Your task to perform on an android device: empty trash in google photos Image 0: 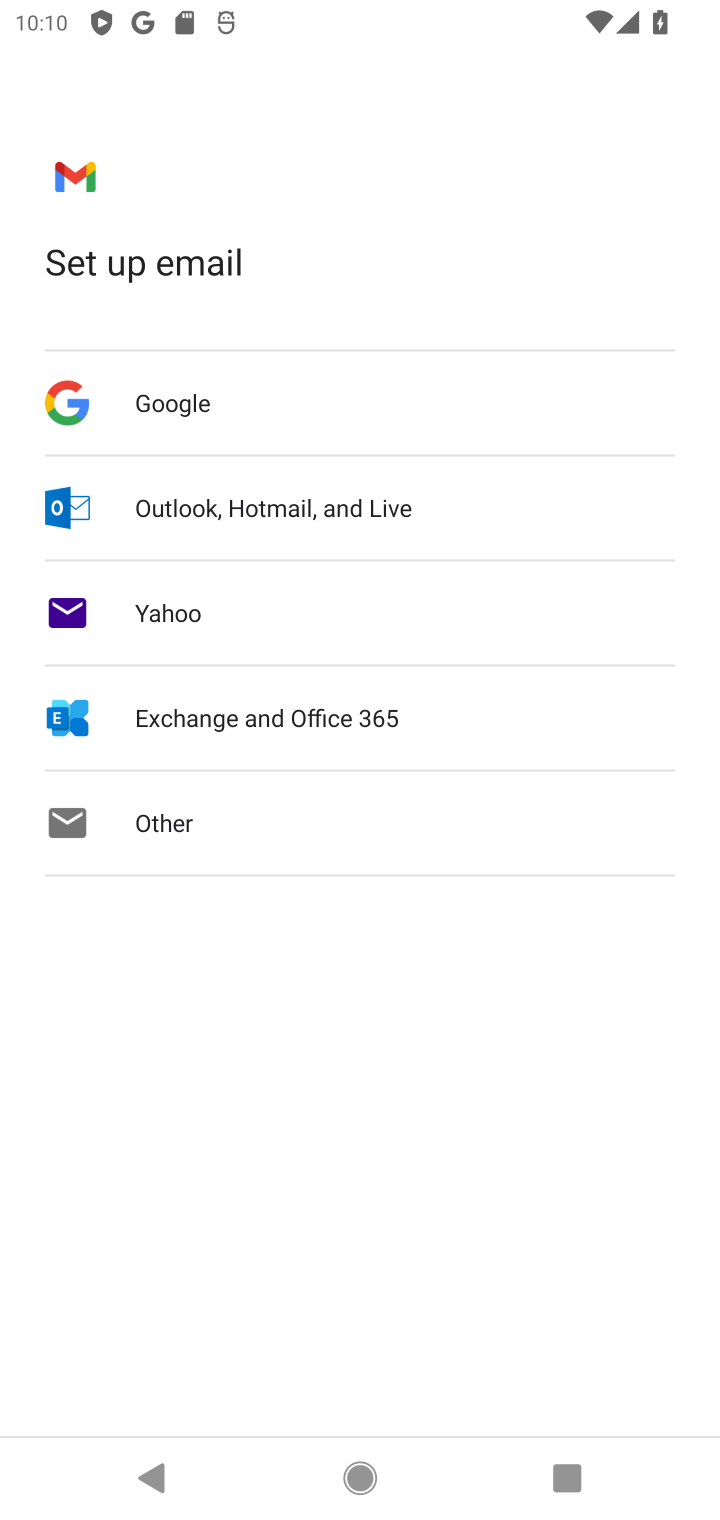
Step 0: press home button
Your task to perform on an android device: empty trash in google photos Image 1: 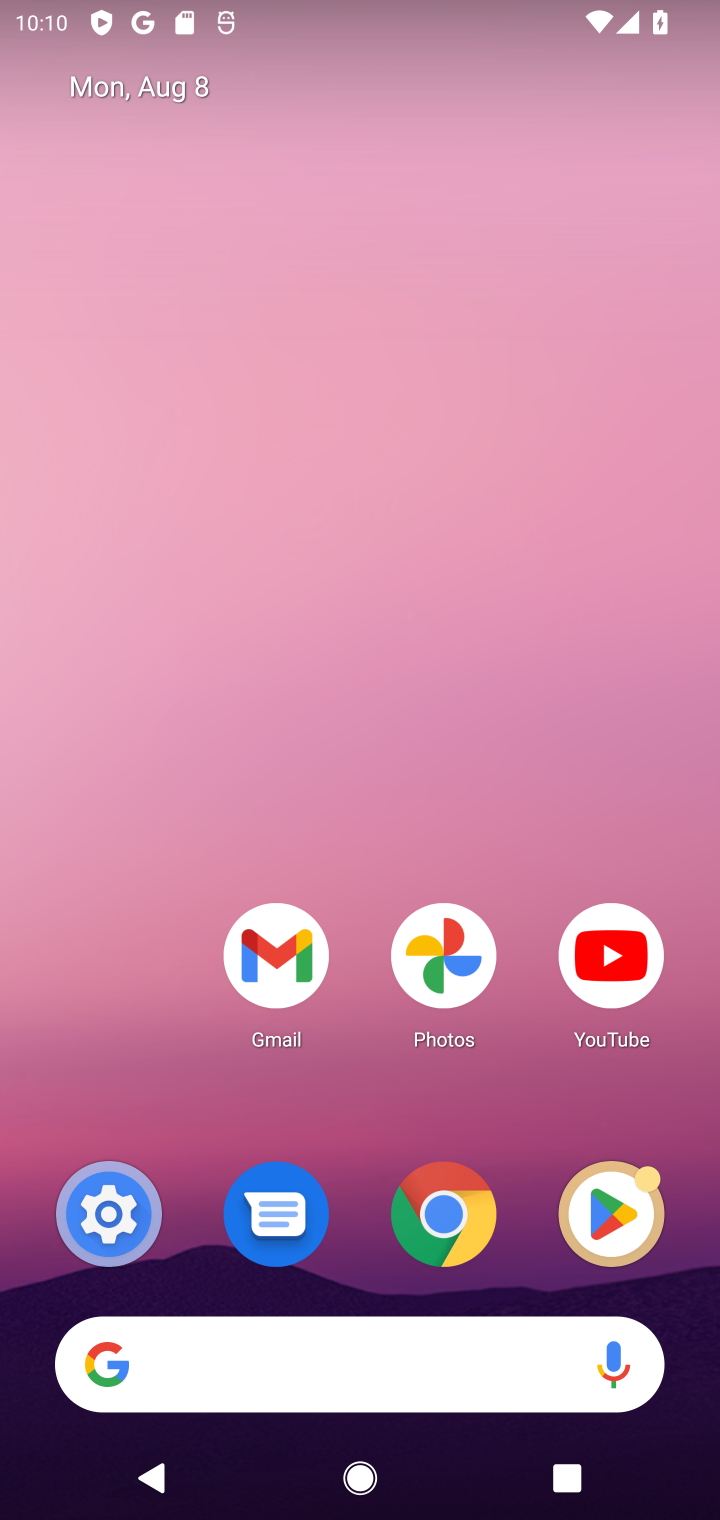
Step 1: click (429, 972)
Your task to perform on an android device: empty trash in google photos Image 2: 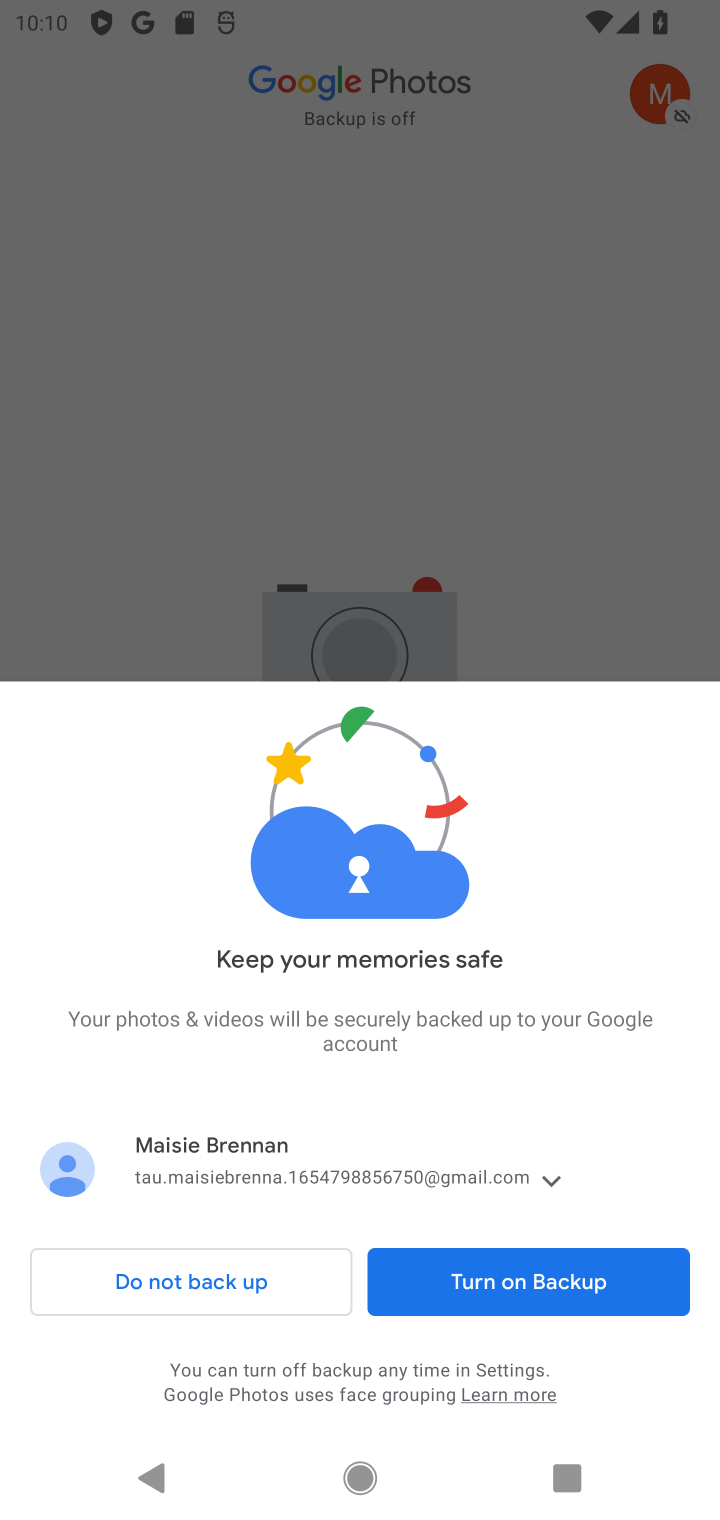
Step 2: click (365, 549)
Your task to perform on an android device: empty trash in google photos Image 3: 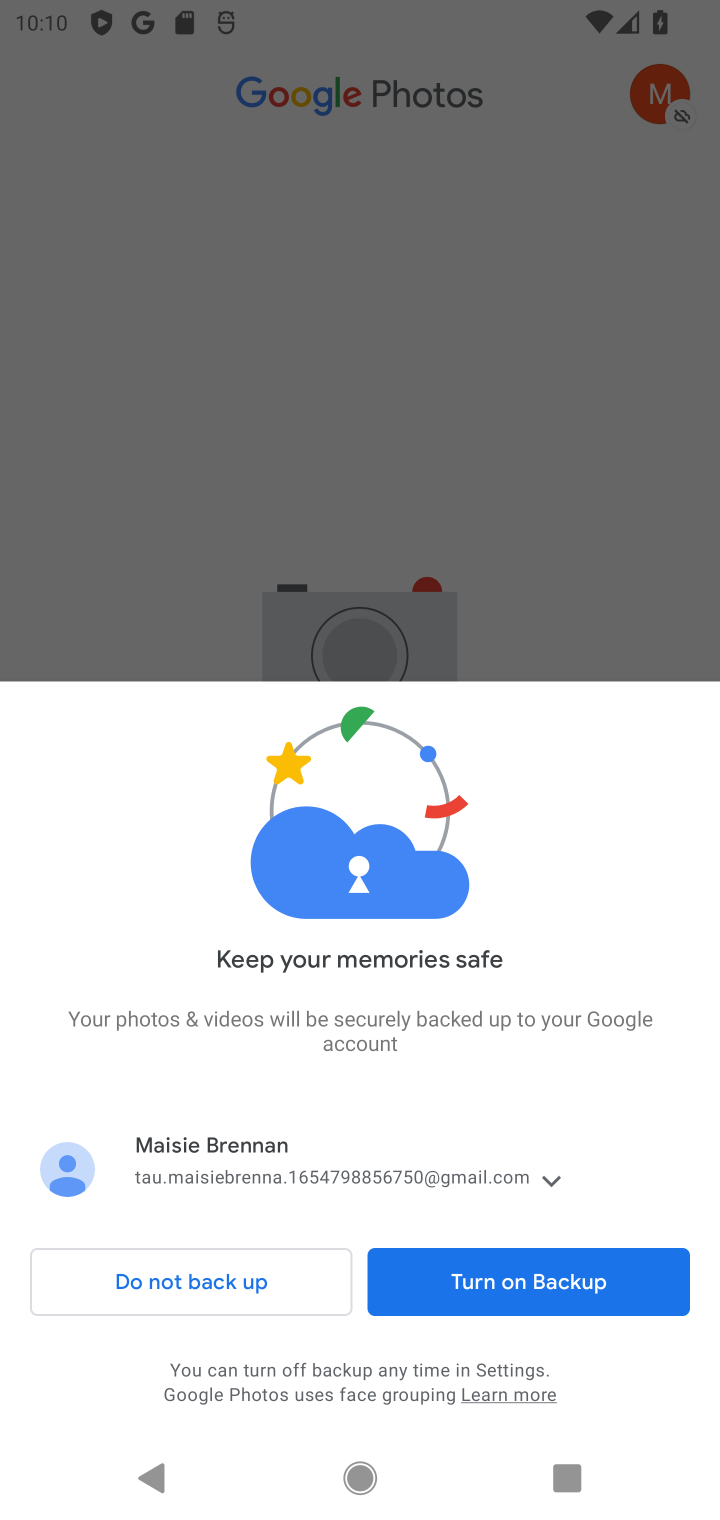
Step 3: click (242, 1281)
Your task to perform on an android device: empty trash in google photos Image 4: 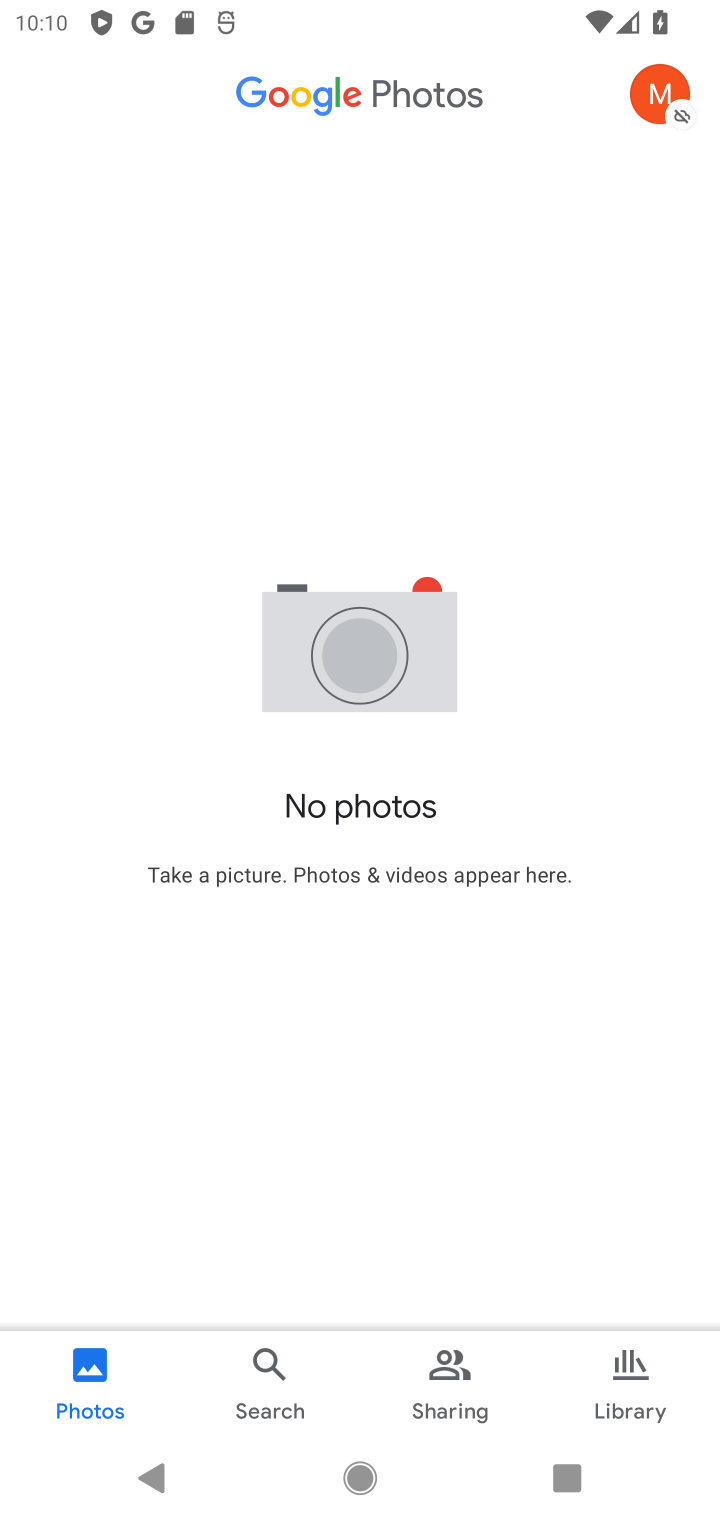
Step 4: click (679, 108)
Your task to perform on an android device: empty trash in google photos Image 5: 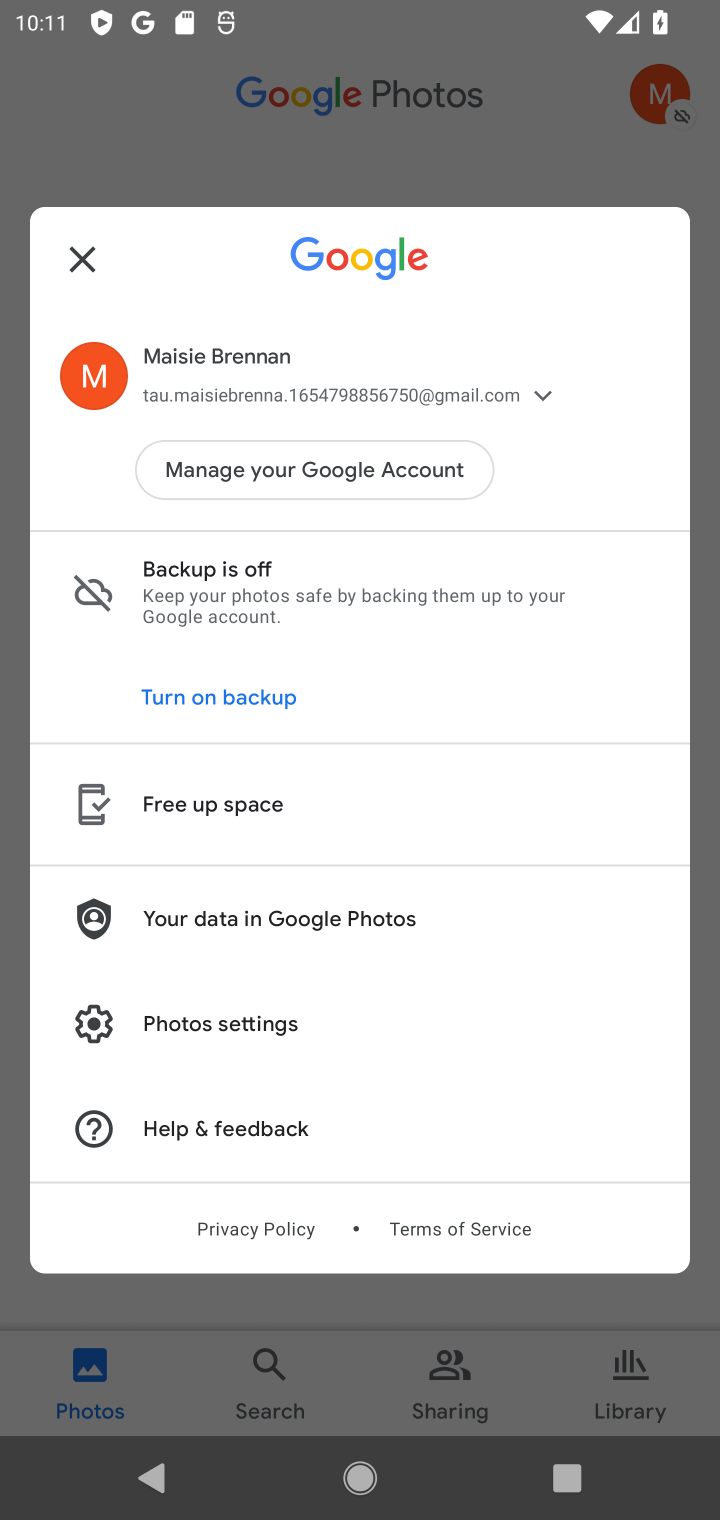
Step 5: click (215, 1000)
Your task to perform on an android device: empty trash in google photos Image 6: 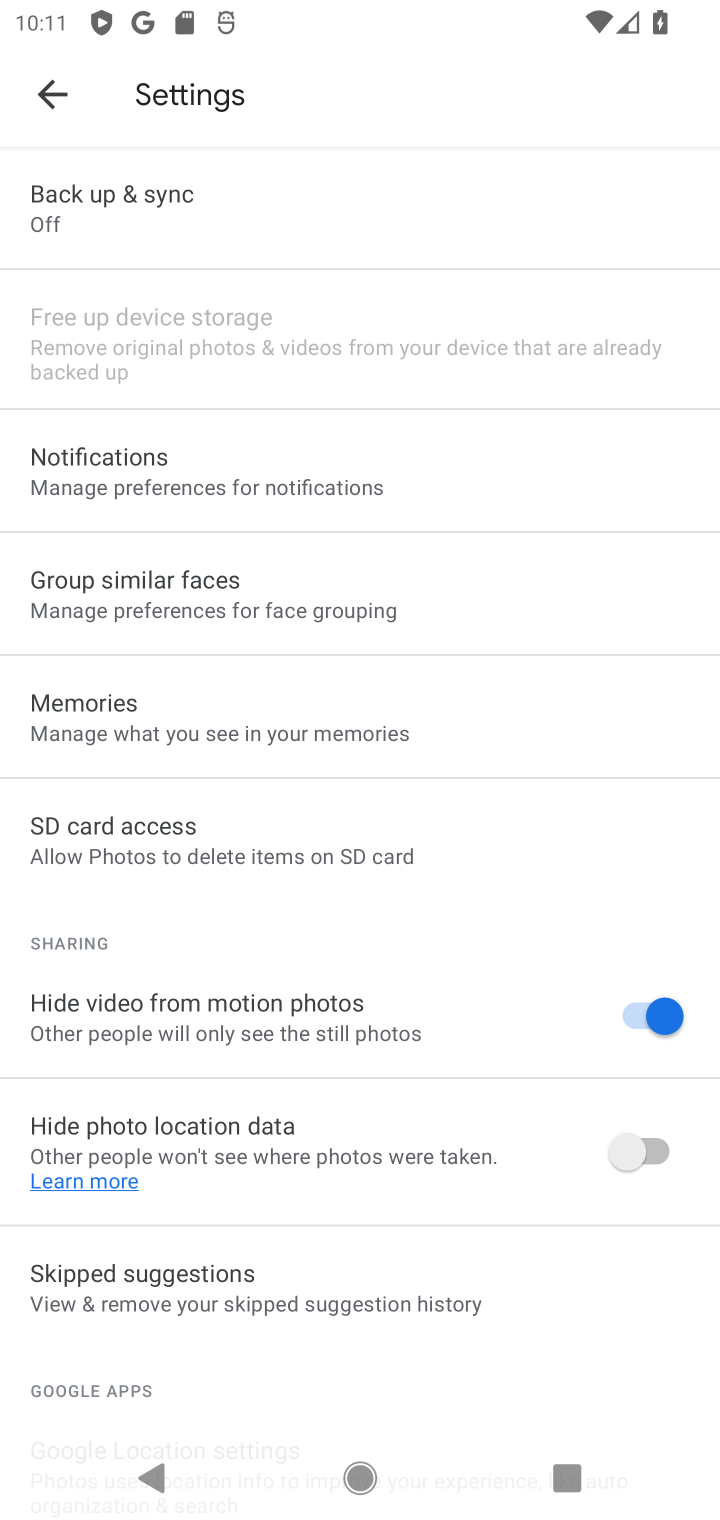
Step 6: task complete